Your task to perform on an android device: Go to Google maps Image 0: 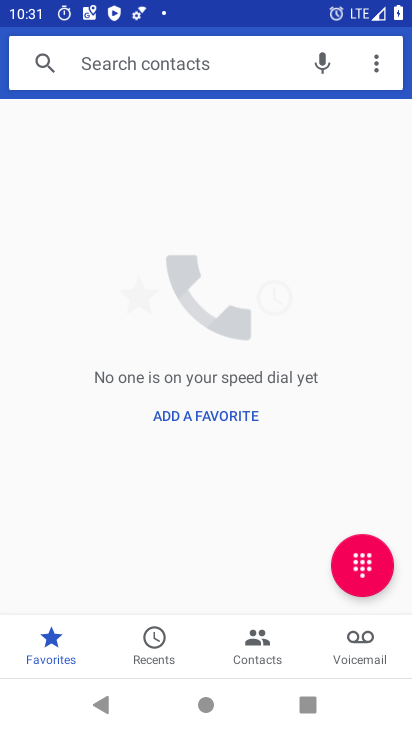
Step 0: press back button
Your task to perform on an android device: Go to Google maps Image 1: 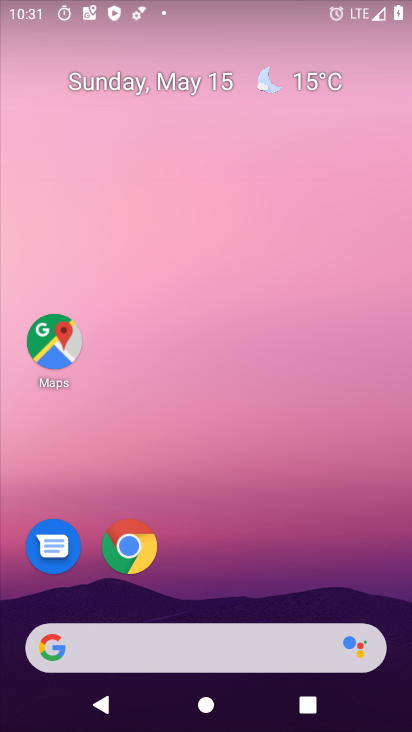
Step 1: drag from (272, 696) to (78, 129)
Your task to perform on an android device: Go to Google maps Image 2: 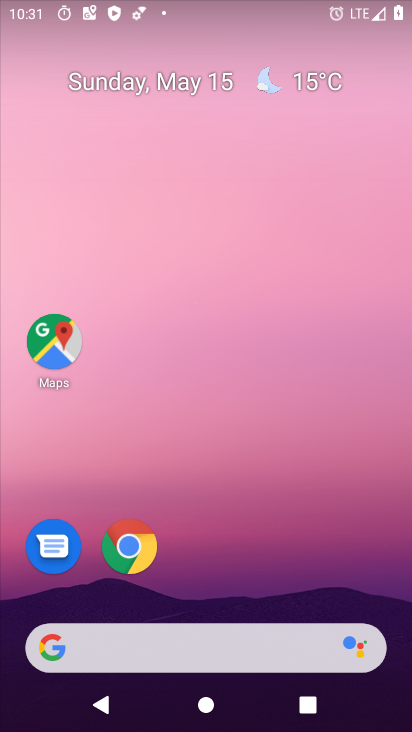
Step 2: drag from (254, 630) to (141, 26)
Your task to perform on an android device: Go to Google maps Image 3: 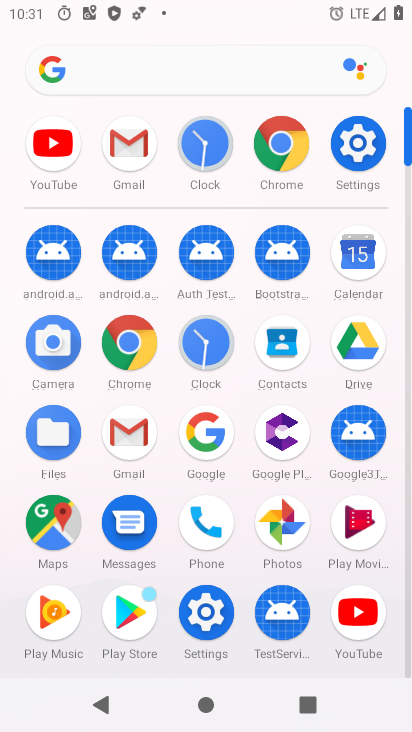
Step 3: click (62, 531)
Your task to perform on an android device: Go to Google maps Image 4: 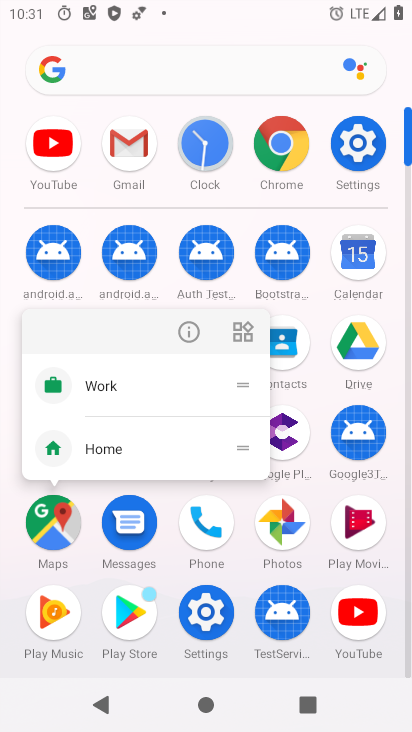
Step 4: click (63, 502)
Your task to perform on an android device: Go to Google maps Image 5: 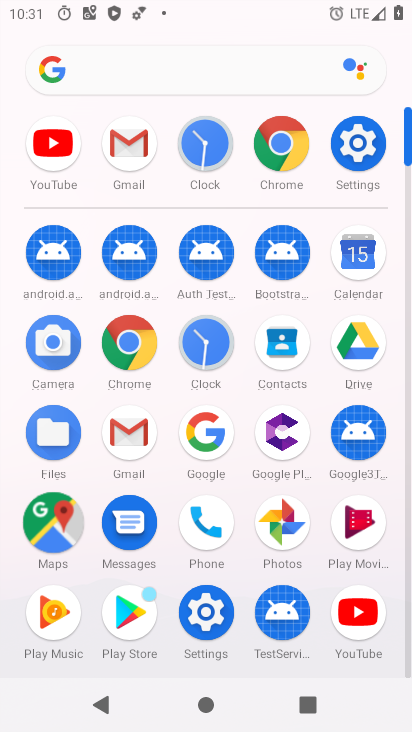
Step 5: click (54, 519)
Your task to perform on an android device: Go to Google maps Image 6: 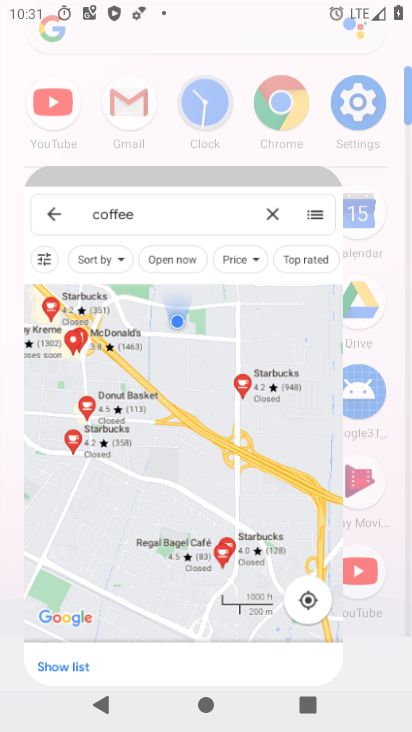
Step 6: click (54, 520)
Your task to perform on an android device: Go to Google maps Image 7: 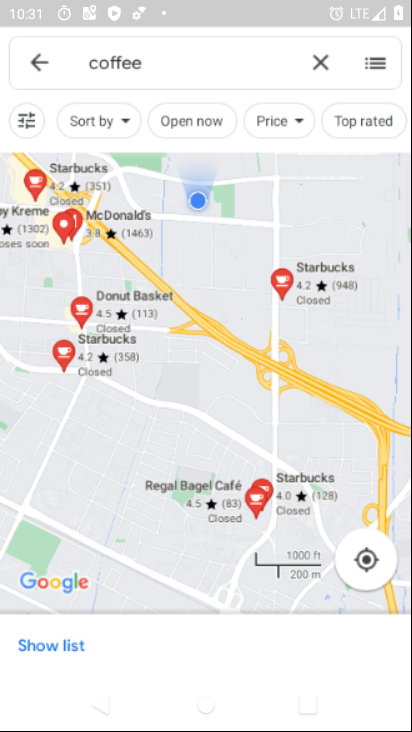
Step 7: click (54, 520)
Your task to perform on an android device: Go to Google maps Image 8: 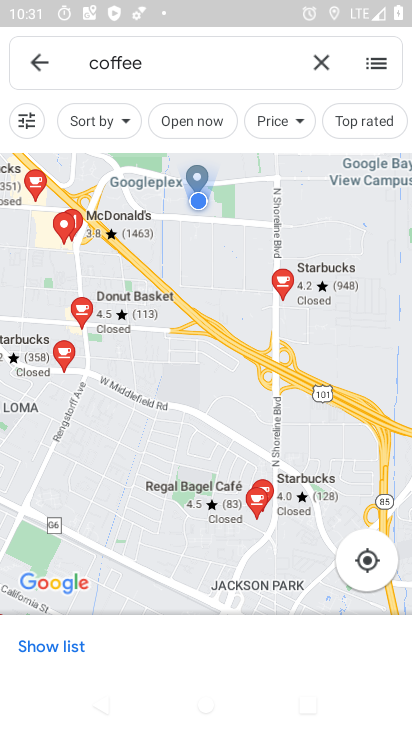
Step 8: click (222, 405)
Your task to perform on an android device: Go to Google maps Image 9: 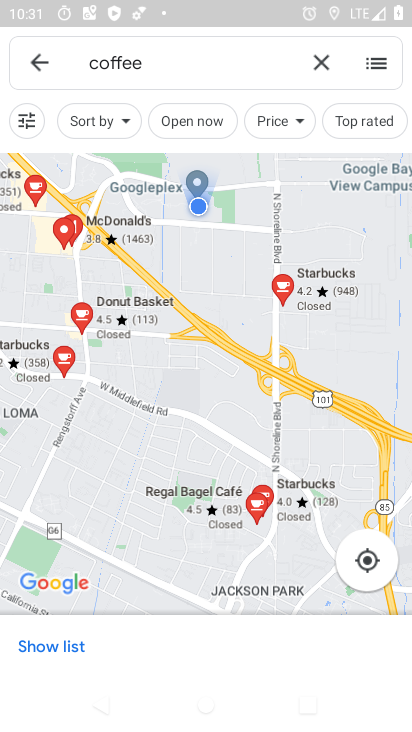
Step 9: task complete